Your task to perform on an android device: What's on my calendar today? Image 0: 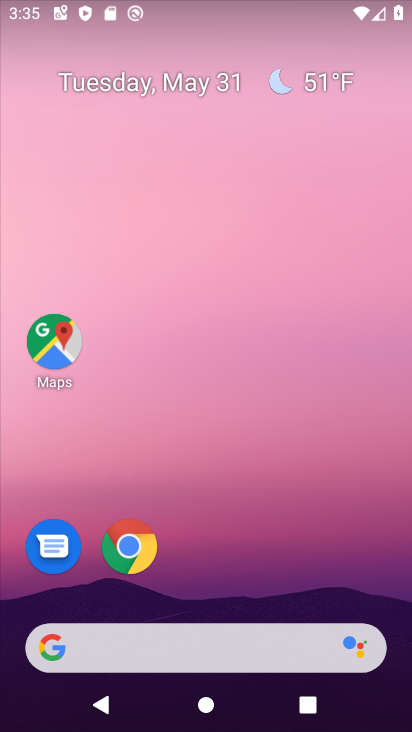
Step 0: drag from (208, 579) to (159, 40)
Your task to perform on an android device: What's on my calendar today? Image 1: 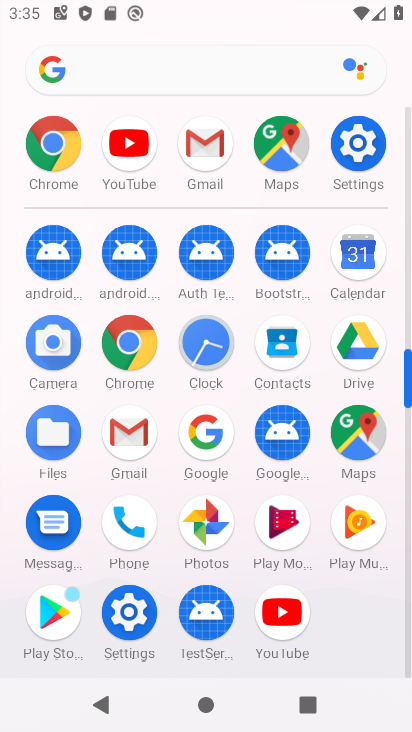
Step 1: click (350, 260)
Your task to perform on an android device: What's on my calendar today? Image 2: 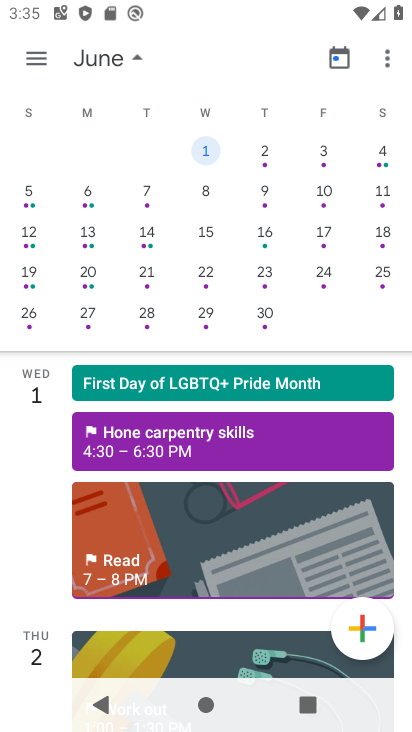
Step 2: drag from (137, 392) to (118, 552)
Your task to perform on an android device: What's on my calendar today? Image 3: 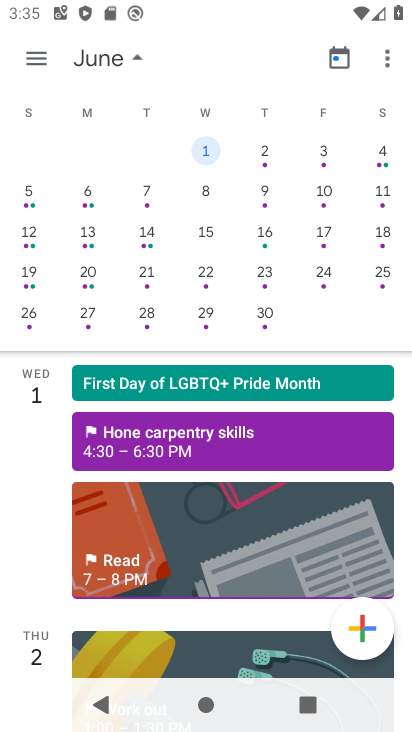
Step 3: drag from (115, 456) to (71, 657)
Your task to perform on an android device: What's on my calendar today? Image 4: 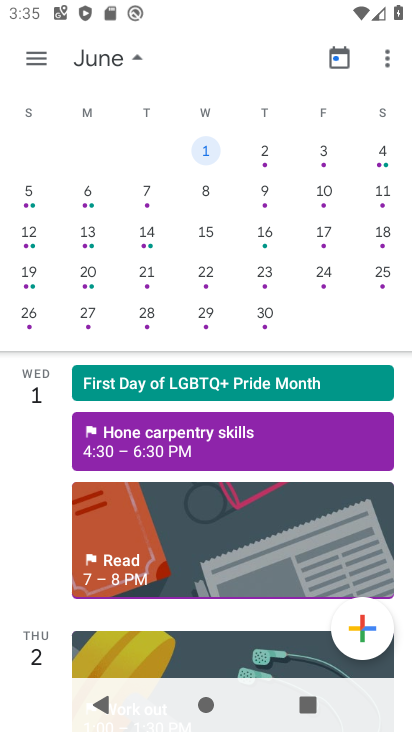
Step 4: drag from (95, 409) to (87, 640)
Your task to perform on an android device: What's on my calendar today? Image 5: 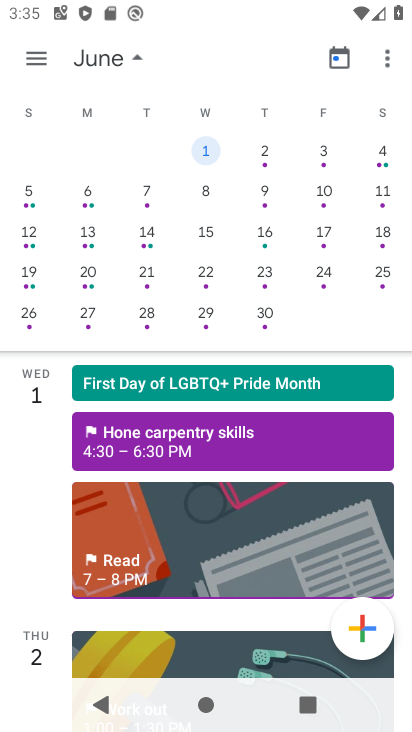
Step 5: drag from (61, 276) to (396, 268)
Your task to perform on an android device: What's on my calendar today? Image 6: 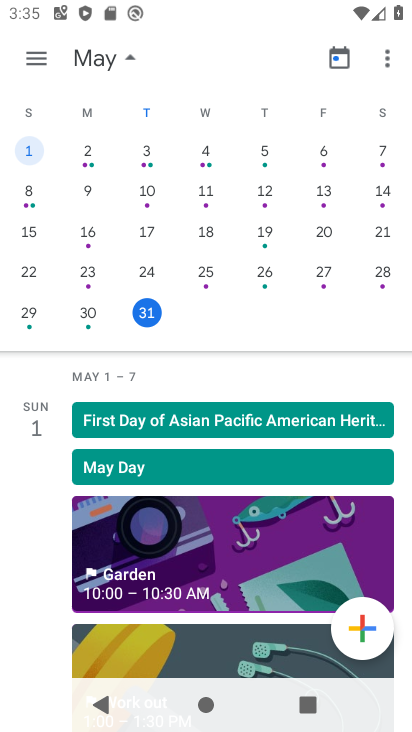
Step 6: drag from (169, 445) to (152, 688)
Your task to perform on an android device: What's on my calendar today? Image 7: 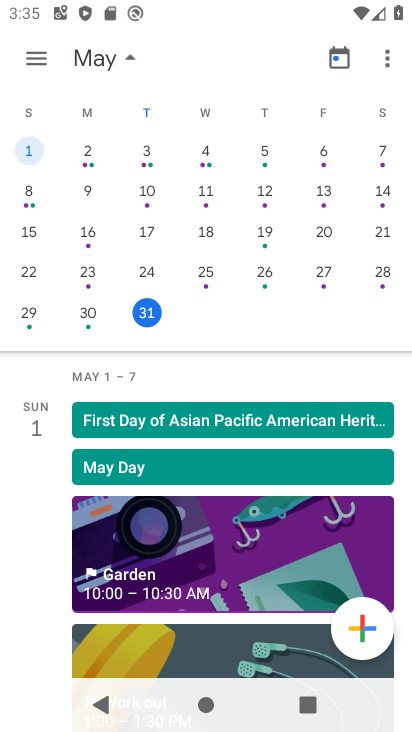
Step 7: click (145, 311)
Your task to perform on an android device: What's on my calendar today? Image 8: 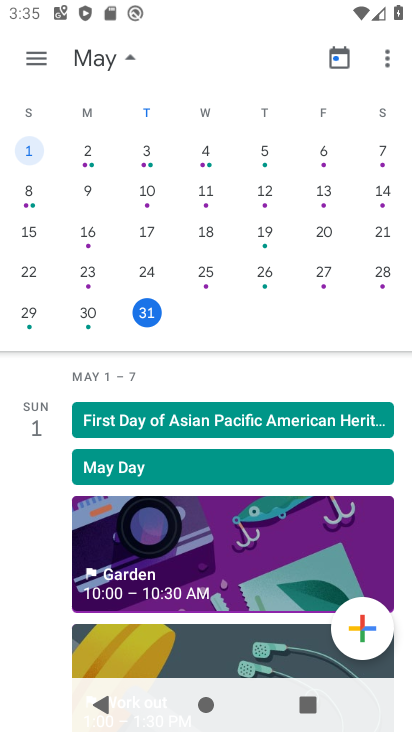
Step 8: click (145, 311)
Your task to perform on an android device: What's on my calendar today? Image 9: 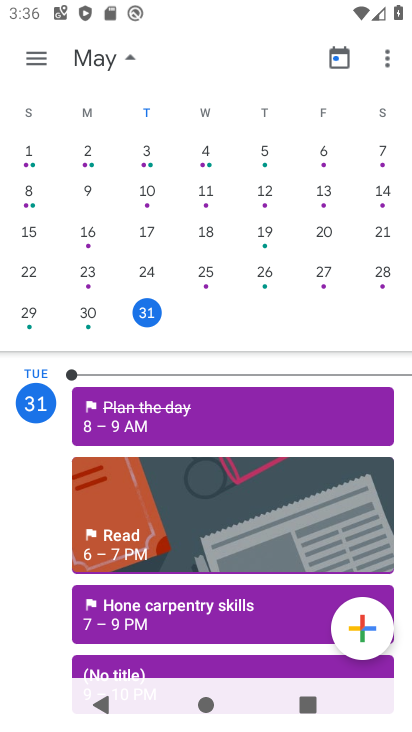
Step 9: task complete